Your task to perform on an android device: Search for Italian restaurants on Maps Image 0: 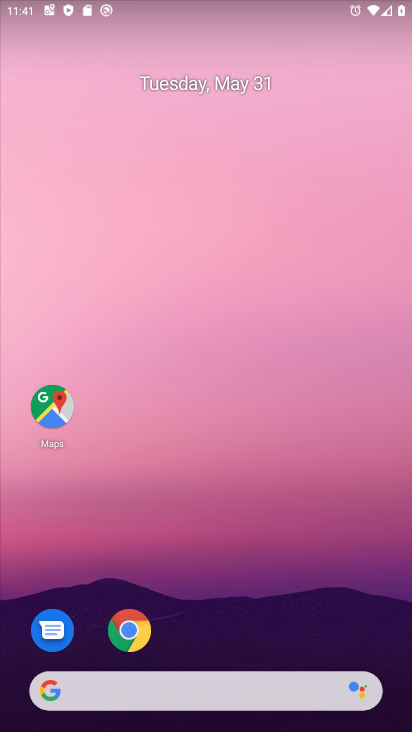
Step 0: click (46, 407)
Your task to perform on an android device: Search for Italian restaurants on Maps Image 1: 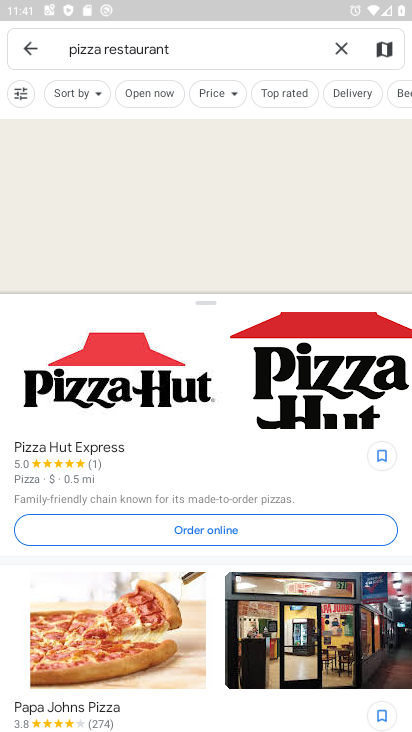
Step 1: click (211, 52)
Your task to perform on an android device: Search for Italian restaurants on Maps Image 2: 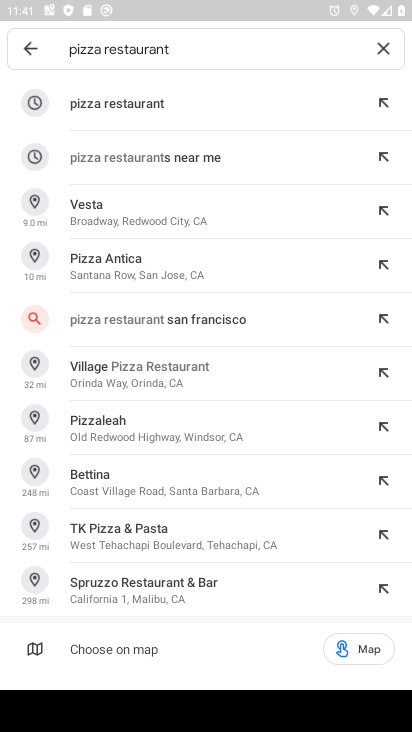
Step 2: click (376, 42)
Your task to perform on an android device: Search for Italian restaurants on Maps Image 3: 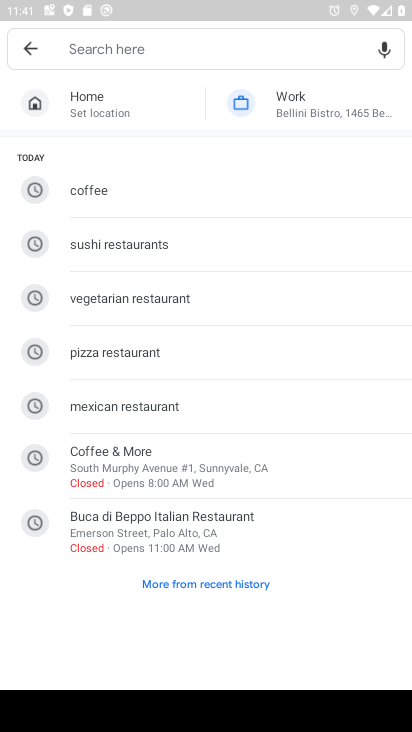
Step 3: type "italian restaurants"
Your task to perform on an android device: Search for Italian restaurants on Maps Image 4: 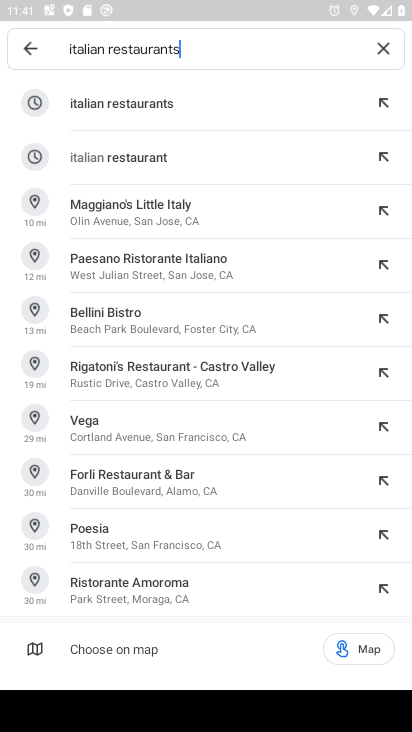
Step 4: click (171, 108)
Your task to perform on an android device: Search for Italian restaurants on Maps Image 5: 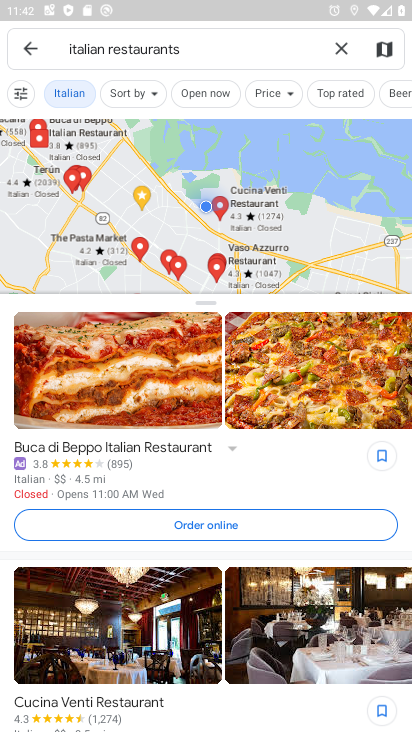
Step 5: task complete